Your task to perform on an android device: make emails show in primary in the gmail app Image 0: 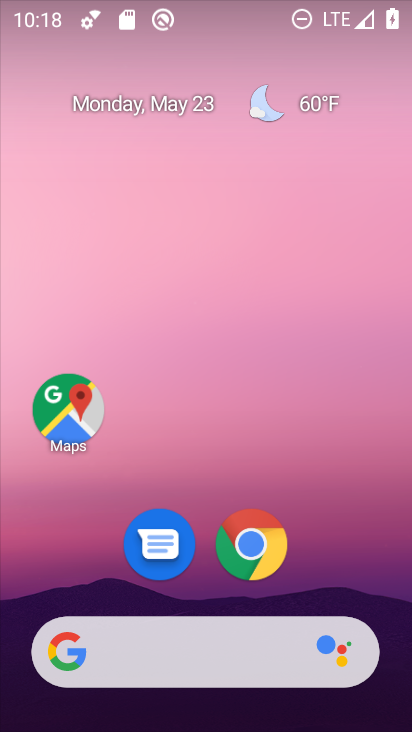
Step 0: drag from (379, 546) to (317, 319)
Your task to perform on an android device: make emails show in primary in the gmail app Image 1: 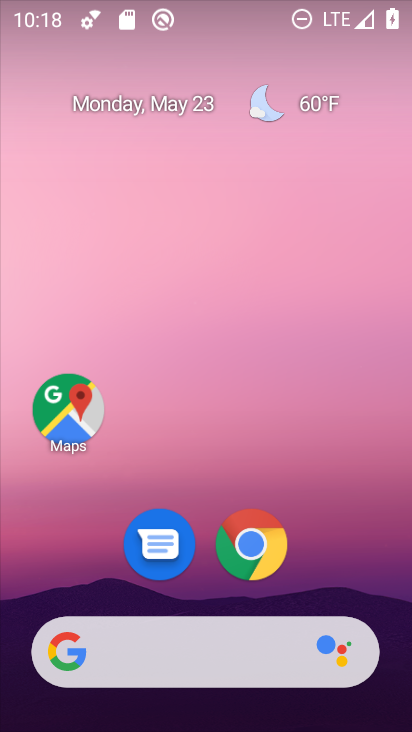
Step 1: drag from (325, 534) to (177, 148)
Your task to perform on an android device: make emails show in primary in the gmail app Image 2: 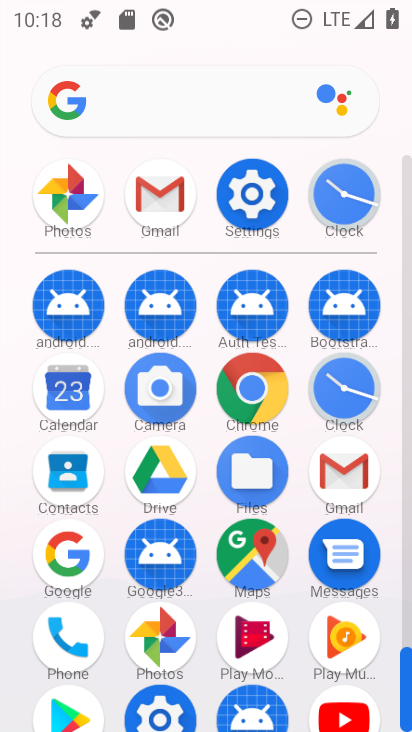
Step 2: click (359, 463)
Your task to perform on an android device: make emails show in primary in the gmail app Image 3: 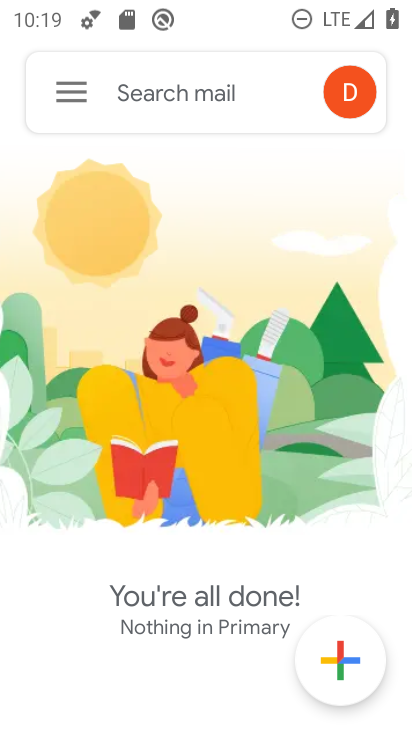
Step 3: click (74, 94)
Your task to perform on an android device: make emails show in primary in the gmail app Image 4: 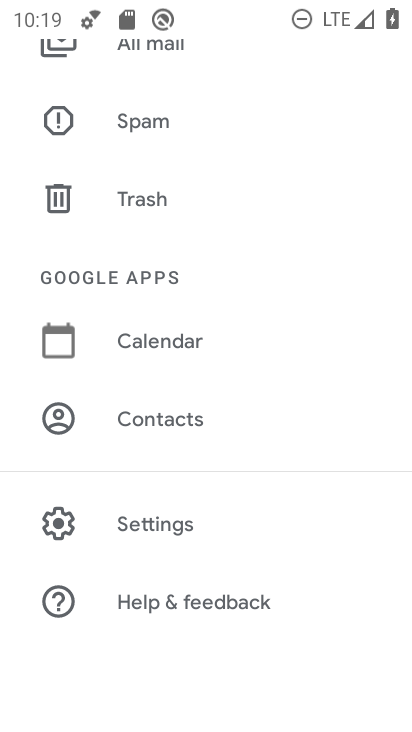
Step 4: click (156, 524)
Your task to perform on an android device: make emails show in primary in the gmail app Image 5: 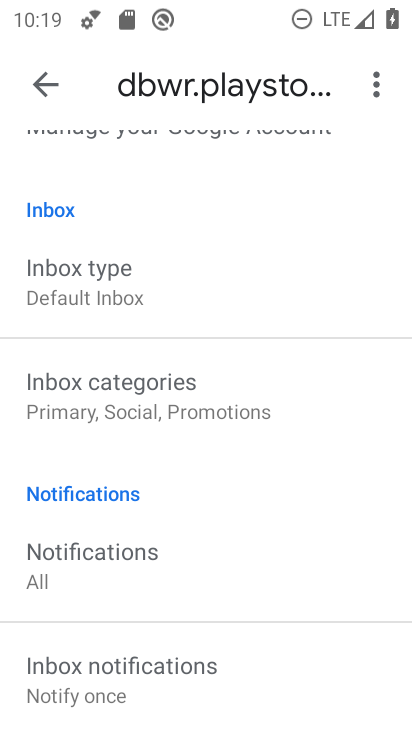
Step 5: click (42, 91)
Your task to perform on an android device: make emails show in primary in the gmail app Image 6: 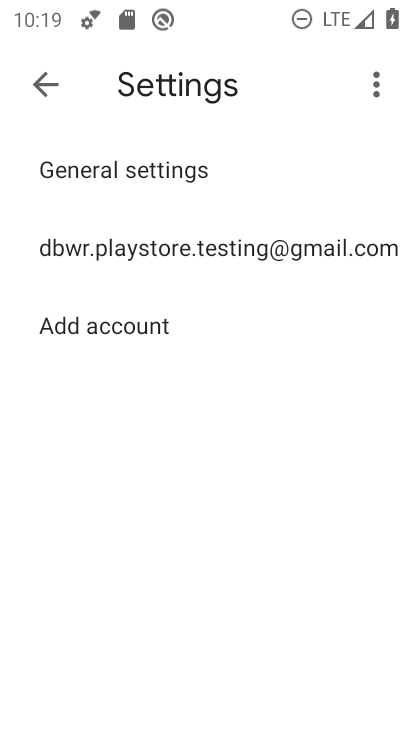
Step 6: click (38, 92)
Your task to perform on an android device: make emails show in primary in the gmail app Image 7: 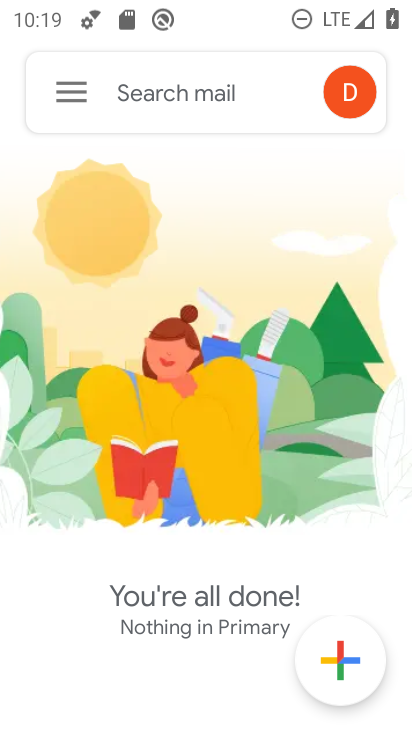
Step 7: click (73, 90)
Your task to perform on an android device: make emails show in primary in the gmail app Image 8: 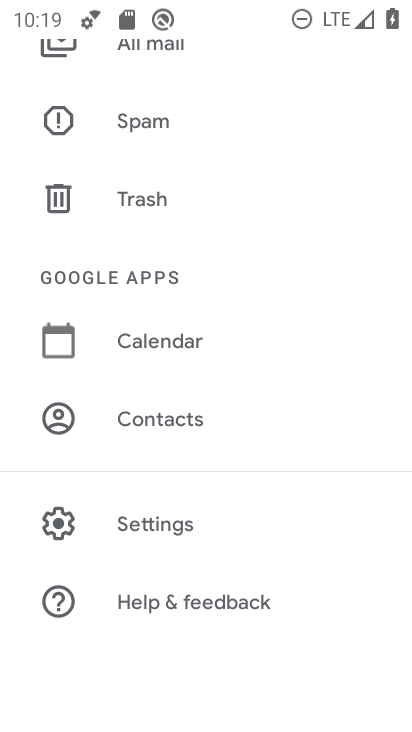
Step 8: drag from (294, 131) to (293, 490)
Your task to perform on an android device: make emails show in primary in the gmail app Image 9: 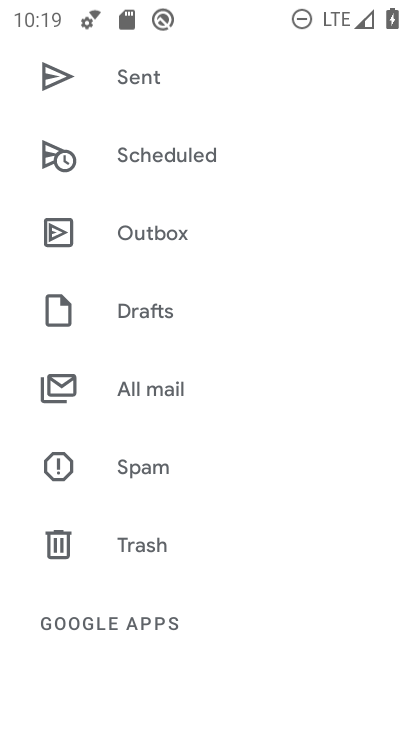
Step 9: drag from (308, 143) to (340, 508)
Your task to perform on an android device: make emails show in primary in the gmail app Image 10: 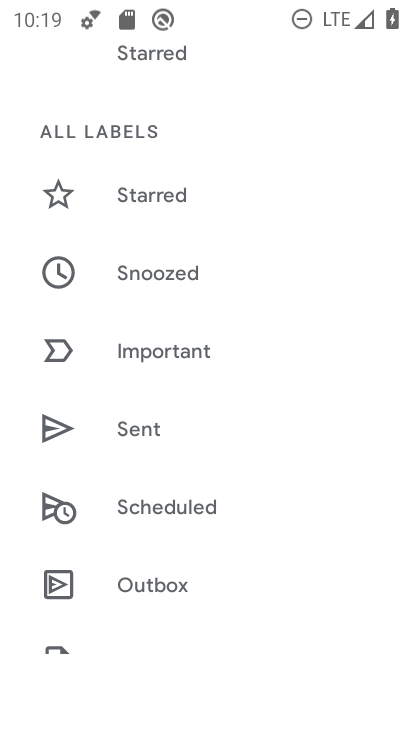
Step 10: drag from (344, 183) to (341, 493)
Your task to perform on an android device: make emails show in primary in the gmail app Image 11: 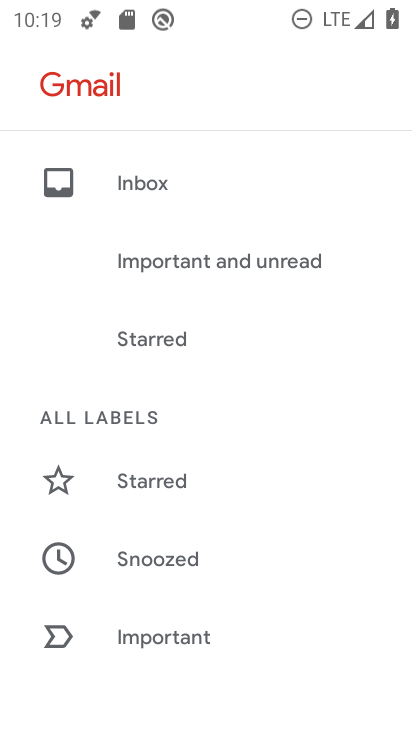
Step 11: drag from (241, 622) to (241, 59)
Your task to perform on an android device: make emails show in primary in the gmail app Image 12: 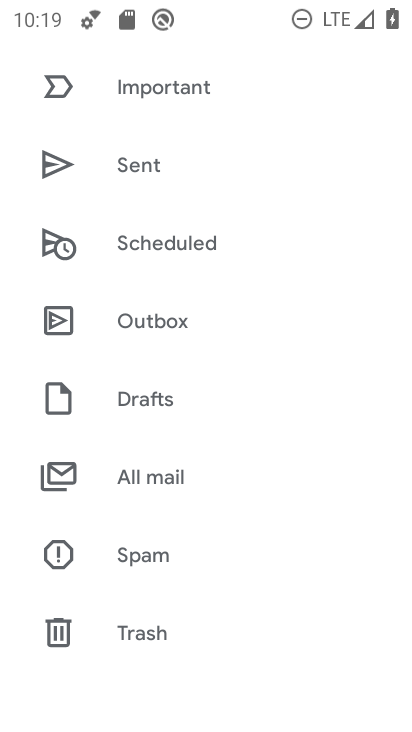
Step 12: drag from (203, 616) to (189, 212)
Your task to perform on an android device: make emails show in primary in the gmail app Image 13: 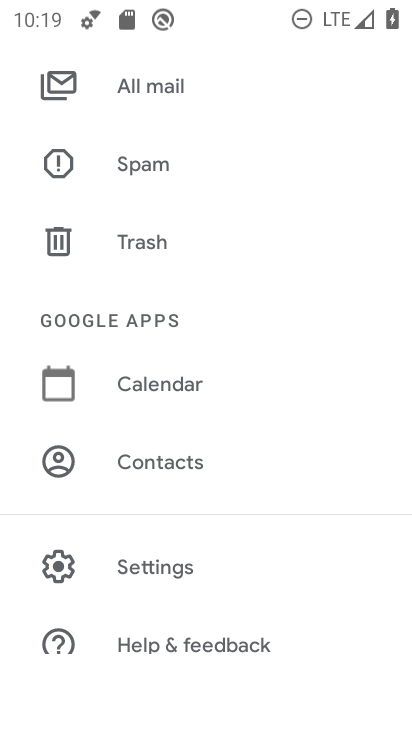
Step 13: click (150, 568)
Your task to perform on an android device: make emails show in primary in the gmail app Image 14: 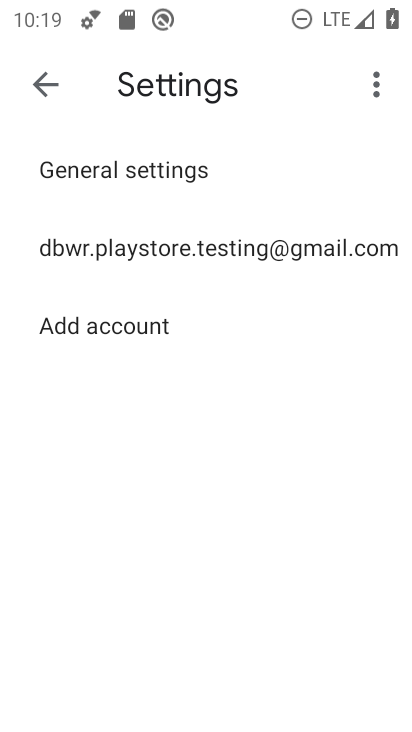
Step 14: click (126, 247)
Your task to perform on an android device: make emails show in primary in the gmail app Image 15: 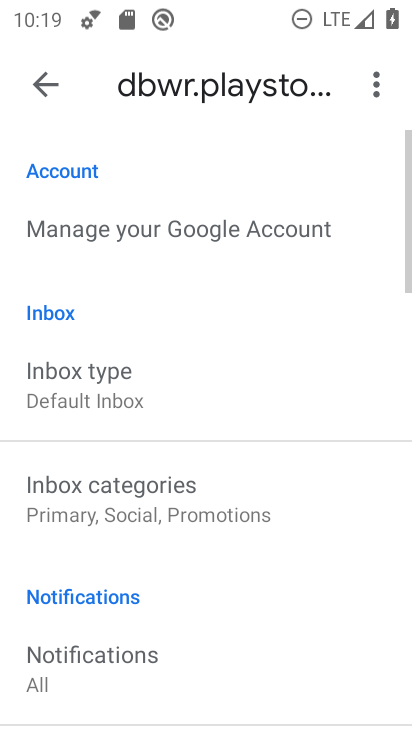
Step 15: click (97, 391)
Your task to perform on an android device: make emails show in primary in the gmail app Image 16: 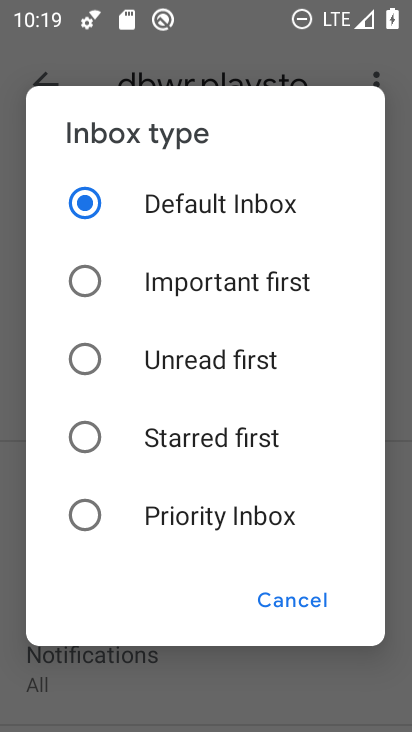
Step 16: click (84, 195)
Your task to perform on an android device: make emails show in primary in the gmail app Image 17: 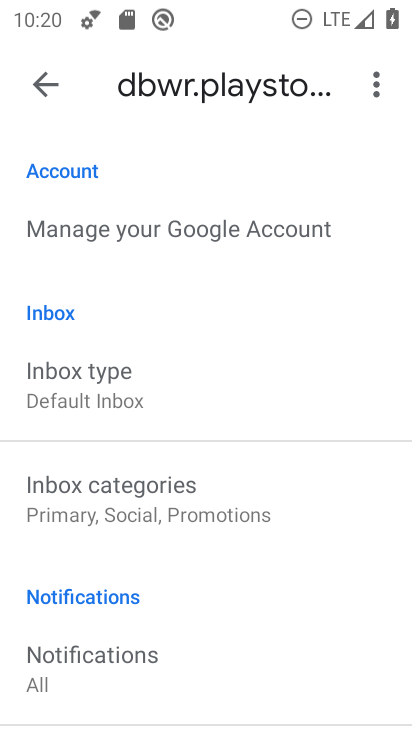
Step 17: click (100, 404)
Your task to perform on an android device: make emails show in primary in the gmail app Image 18: 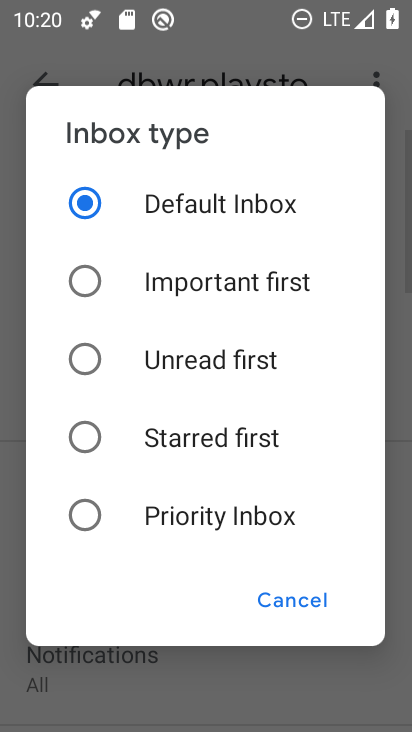
Step 18: click (137, 520)
Your task to perform on an android device: make emails show in primary in the gmail app Image 19: 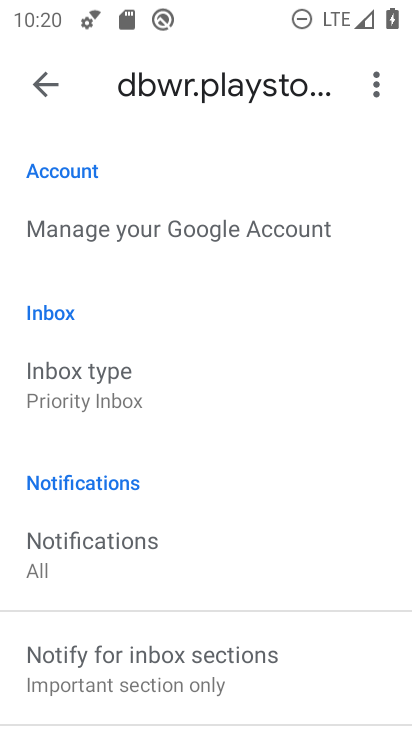
Step 19: click (71, 398)
Your task to perform on an android device: make emails show in primary in the gmail app Image 20: 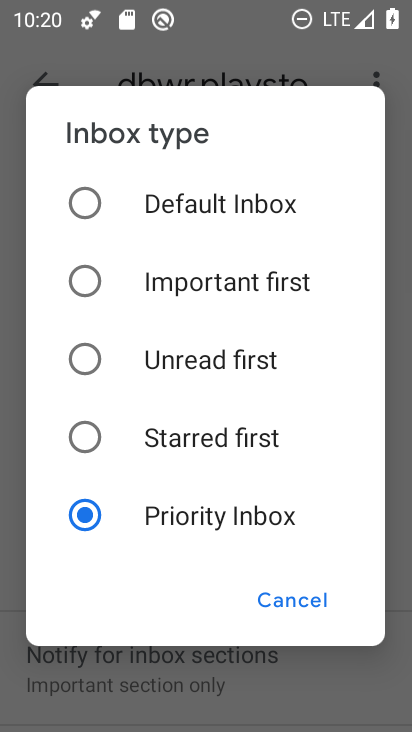
Step 20: click (81, 205)
Your task to perform on an android device: make emails show in primary in the gmail app Image 21: 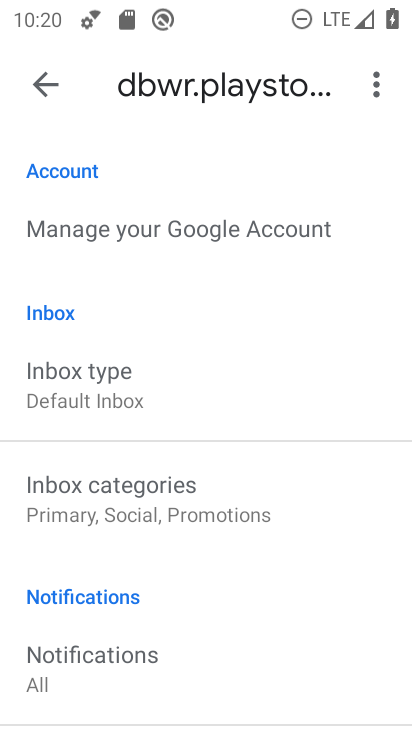
Step 21: press back button
Your task to perform on an android device: make emails show in primary in the gmail app Image 22: 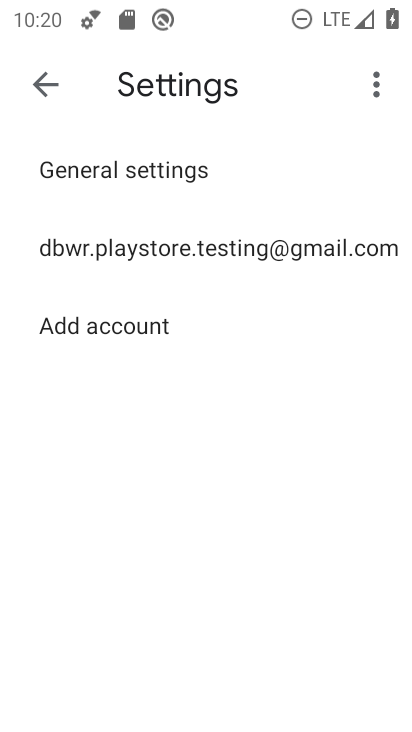
Step 22: press back button
Your task to perform on an android device: make emails show in primary in the gmail app Image 23: 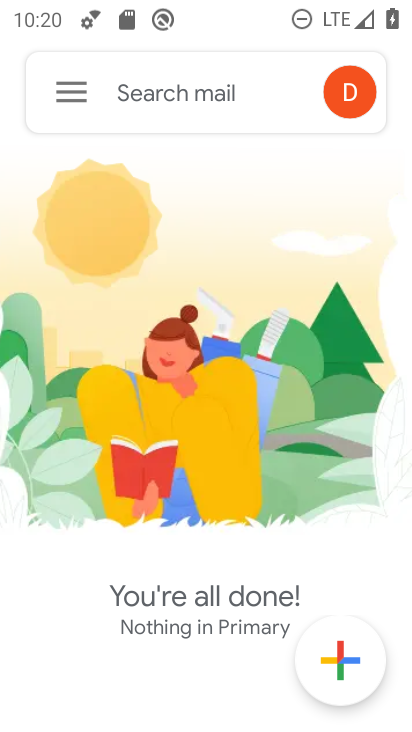
Step 23: click (83, 99)
Your task to perform on an android device: make emails show in primary in the gmail app Image 24: 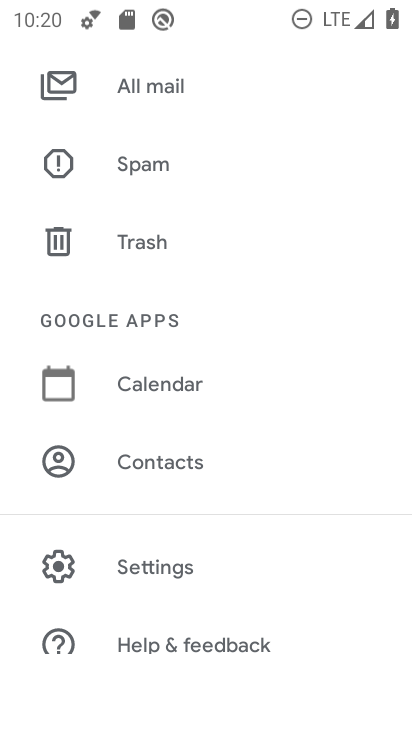
Step 24: task complete